Your task to perform on an android device: View the shopping cart on costco.com. Image 0: 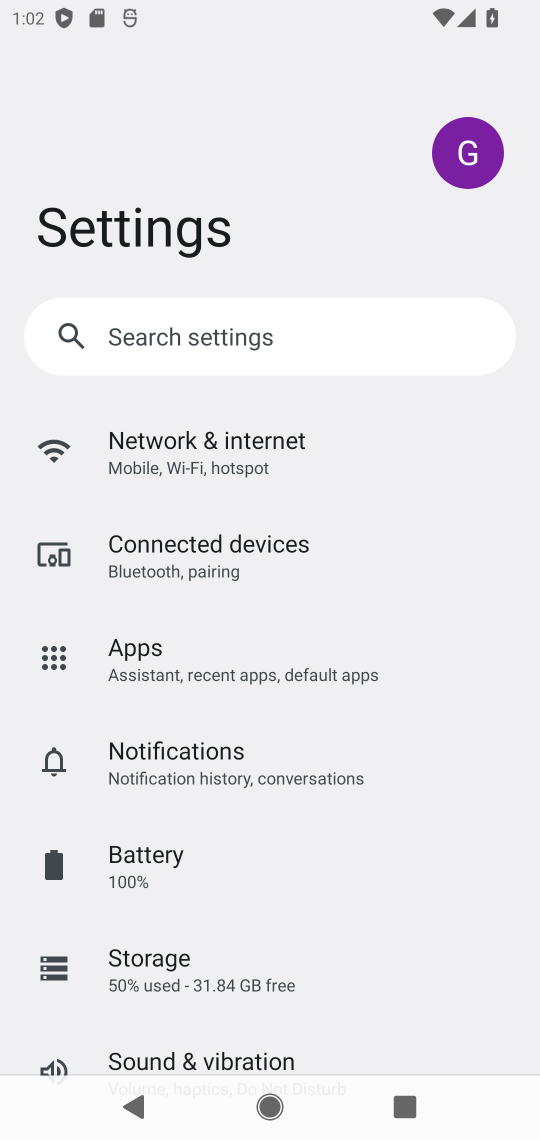
Step 0: press home button
Your task to perform on an android device: View the shopping cart on costco.com. Image 1: 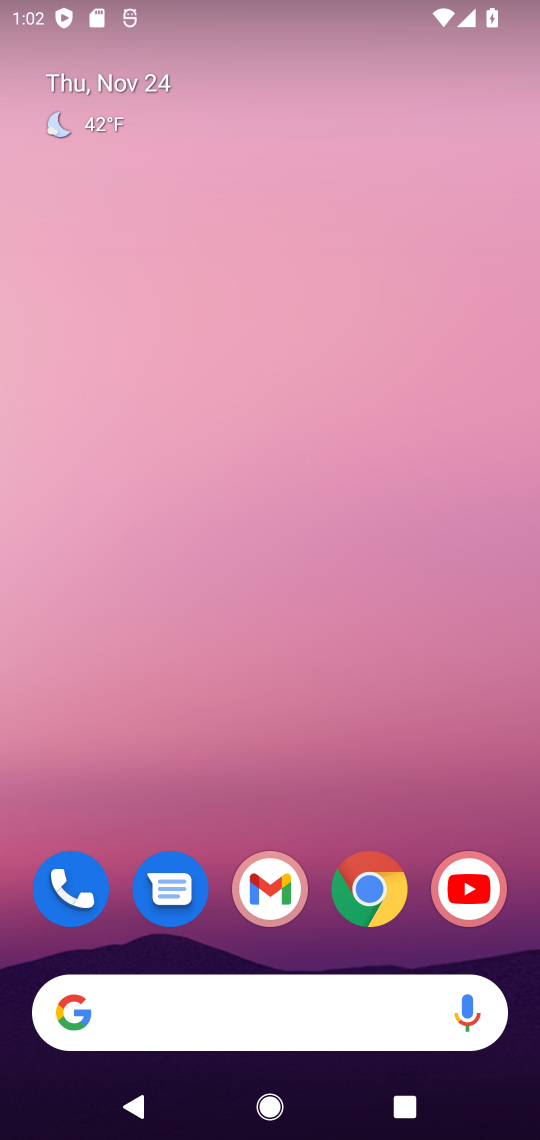
Step 1: click (373, 893)
Your task to perform on an android device: View the shopping cart on costco.com. Image 2: 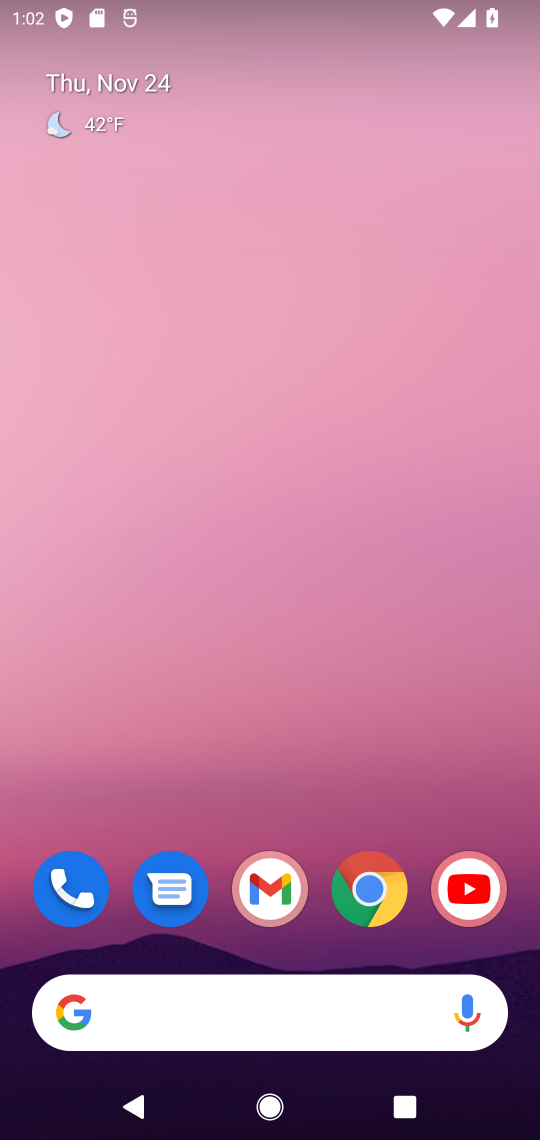
Step 2: click (373, 893)
Your task to perform on an android device: View the shopping cart on costco.com. Image 3: 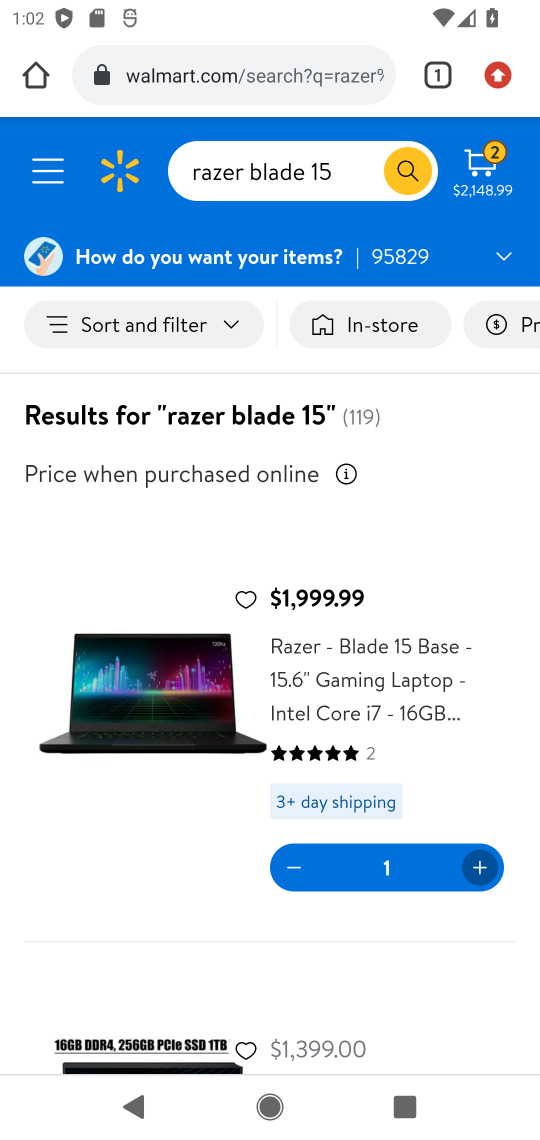
Step 3: click (211, 76)
Your task to perform on an android device: View the shopping cart on costco.com. Image 4: 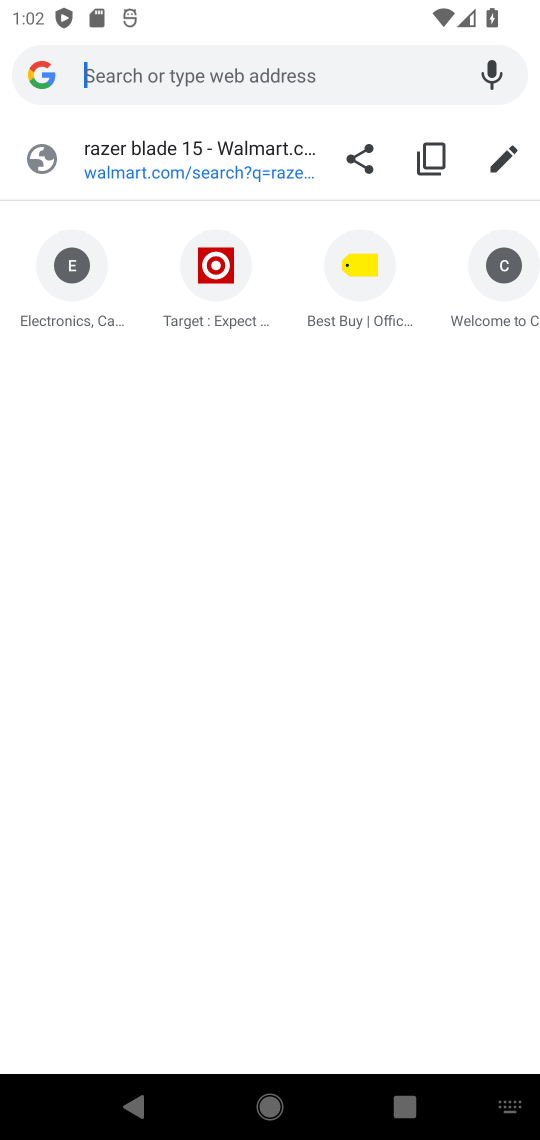
Step 4: type "costco.com"
Your task to perform on an android device: View the shopping cart on costco.com. Image 5: 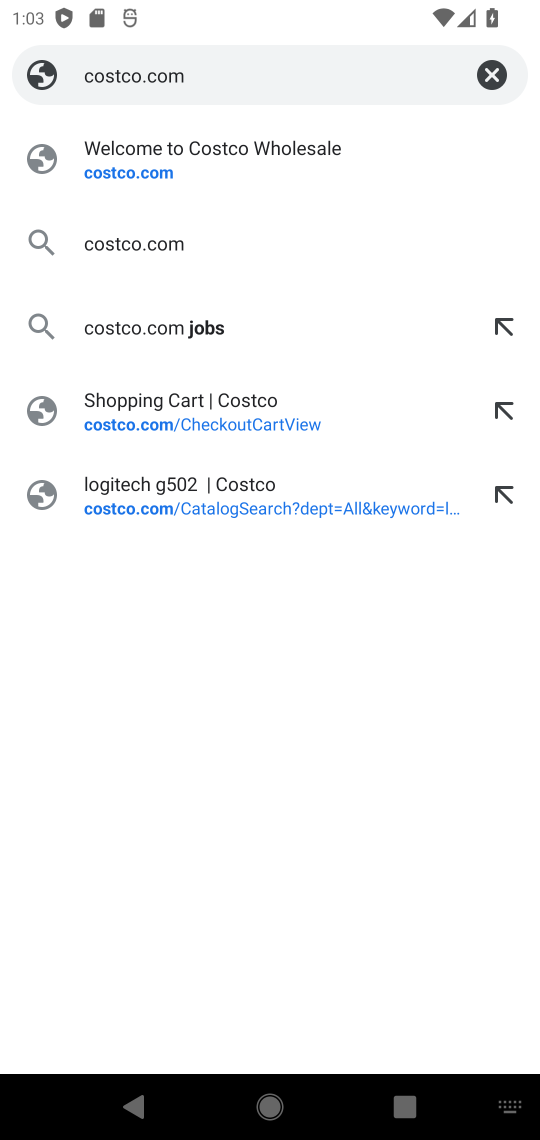
Step 5: click (122, 172)
Your task to perform on an android device: View the shopping cart on costco.com. Image 6: 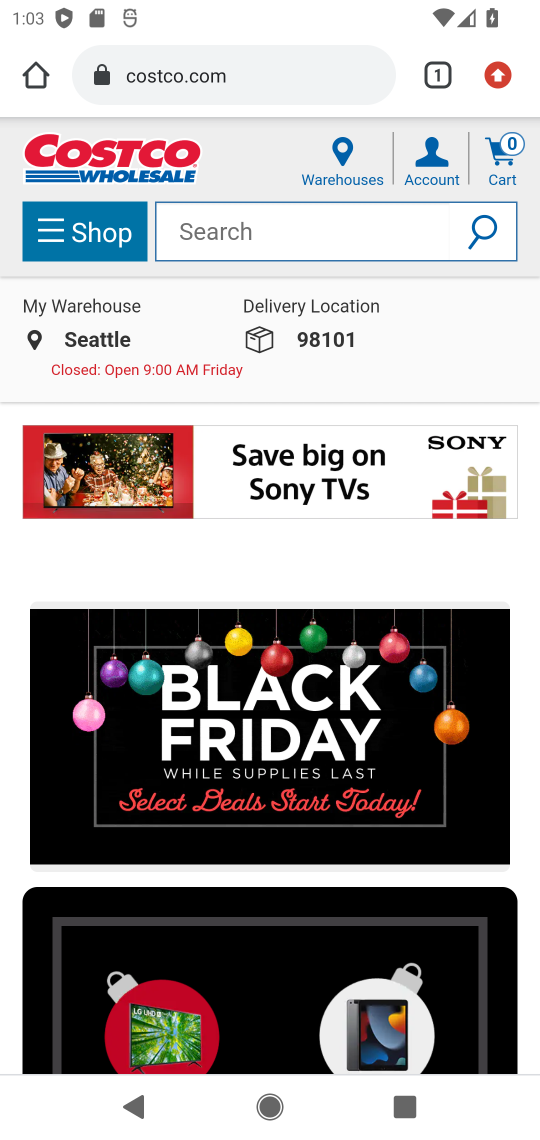
Step 6: click (498, 164)
Your task to perform on an android device: View the shopping cart on costco.com. Image 7: 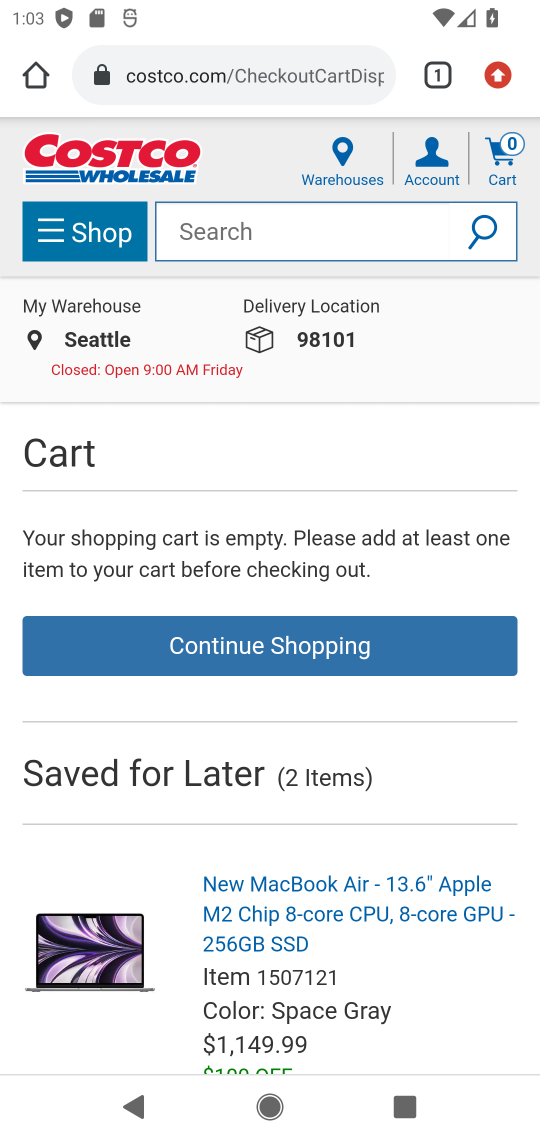
Step 7: task complete